Your task to perform on an android device: star an email in the gmail app Image 0: 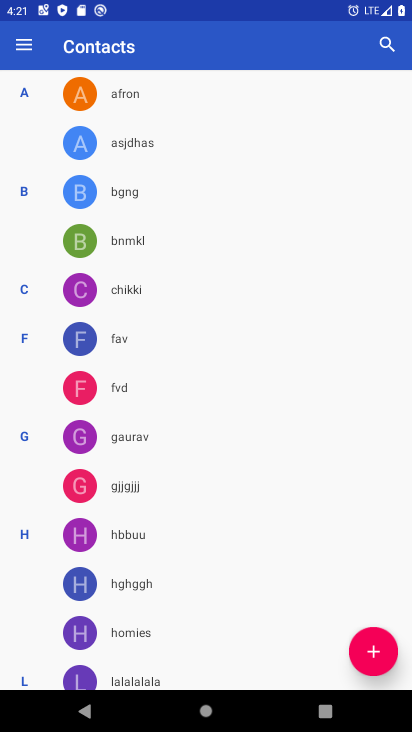
Step 0: press home button
Your task to perform on an android device: star an email in the gmail app Image 1: 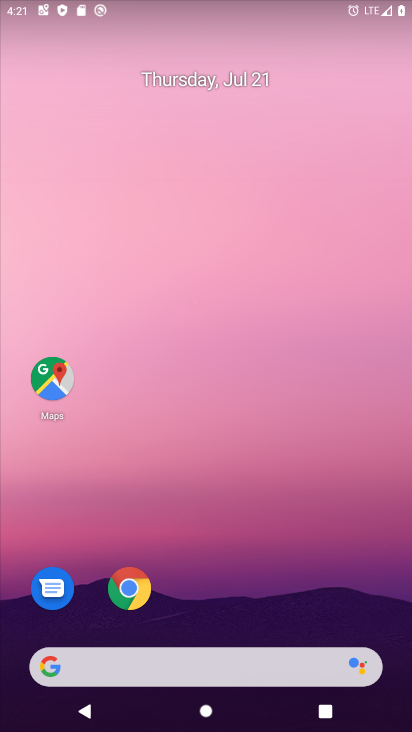
Step 1: drag from (263, 610) to (296, 194)
Your task to perform on an android device: star an email in the gmail app Image 2: 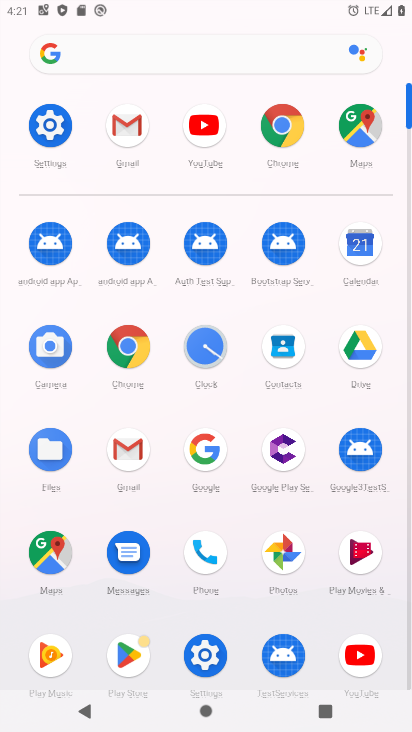
Step 2: click (126, 453)
Your task to perform on an android device: star an email in the gmail app Image 3: 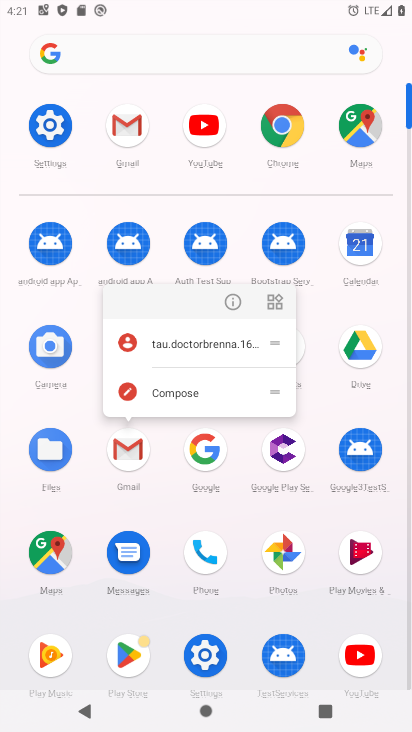
Step 3: click (126, 453)
Your task to perform on an android device: star an email in the gmail app Image 4: 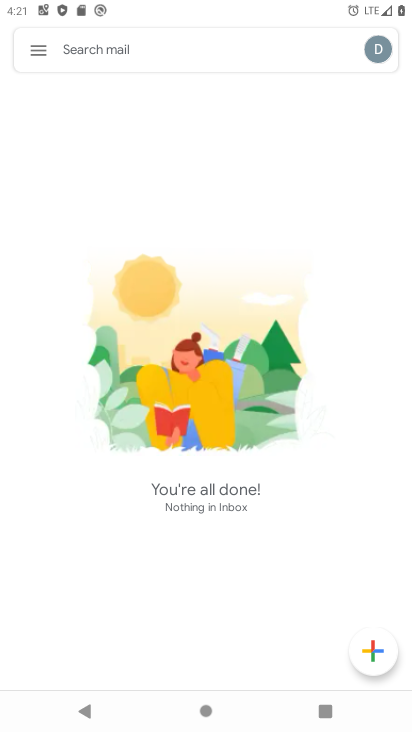
Step 4: task complete